Your task to perform on an android device: turn off data saver in the chrome app Image 0: 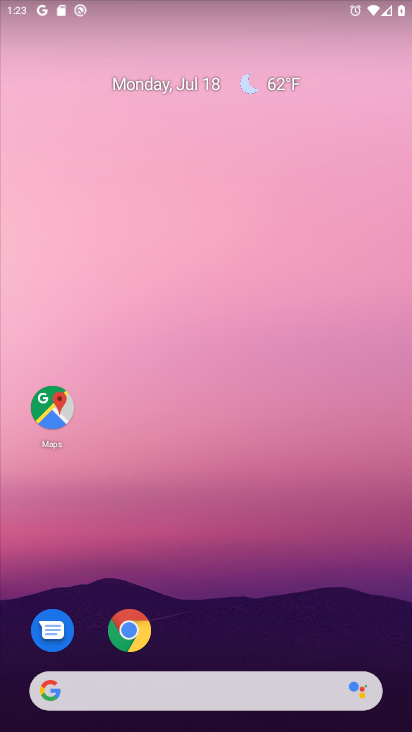
Step 0: click (133, 637)
Your task to perform on an android device: turn off data saver in the chrome app Image 1: 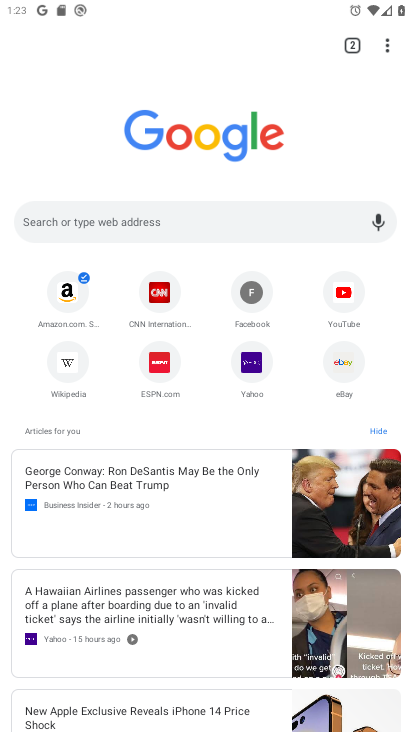
Step 1: click (377, 43)
Your task to perform on an android device: turn off data saver in the chrome app Image 2: 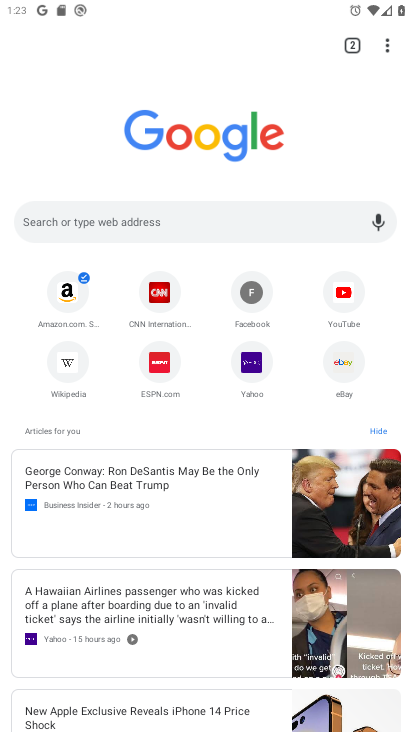
Step 2: click (390, 41)
Your task to perform on an android device: turn off data saver in the chrome app Image 3: 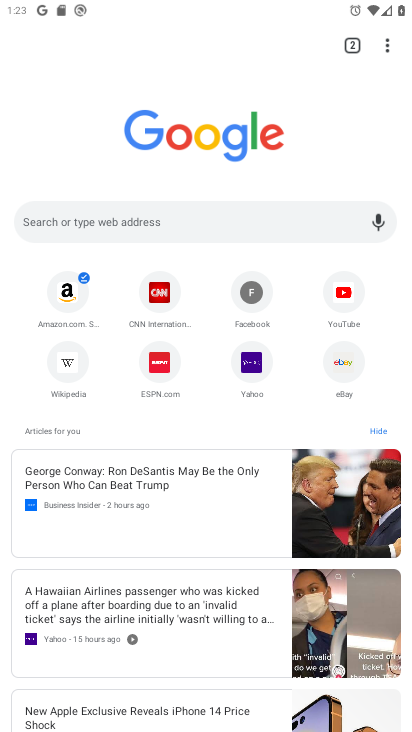
Step 3: click (389, 53)
Your task to perform on an android device: turn off data saver in the chrome app Image 4: 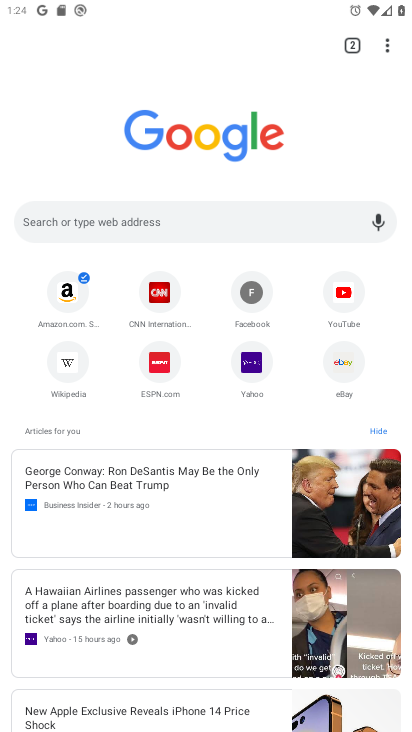
Step 4: click (385, 50)
Your task to perform on an android device: turn off data saver in the chrome app Image 5: 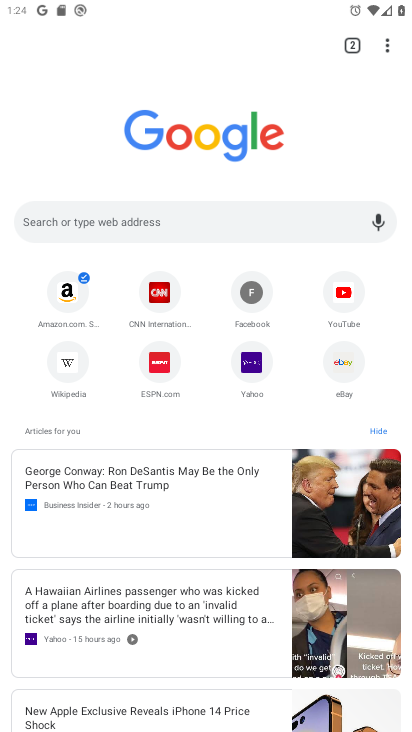
Step 5: click (382, 45)
Your task to perform on an android device: turn off data saver in the chrome app Image 6: 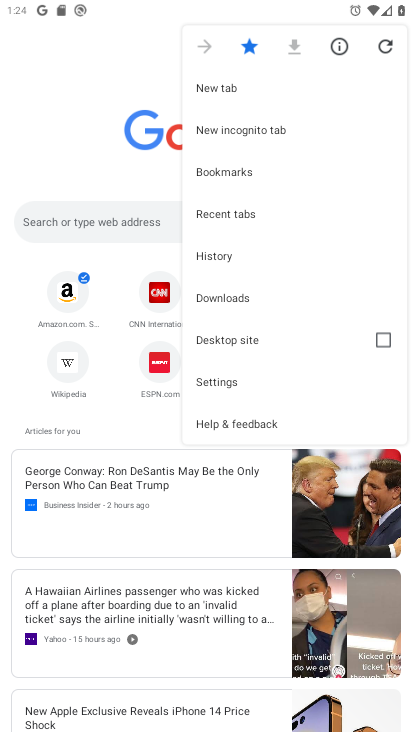
Step 6: click (211, 372)
Your task to perform on an android device: turn off data saver in the chrome app Image 7: 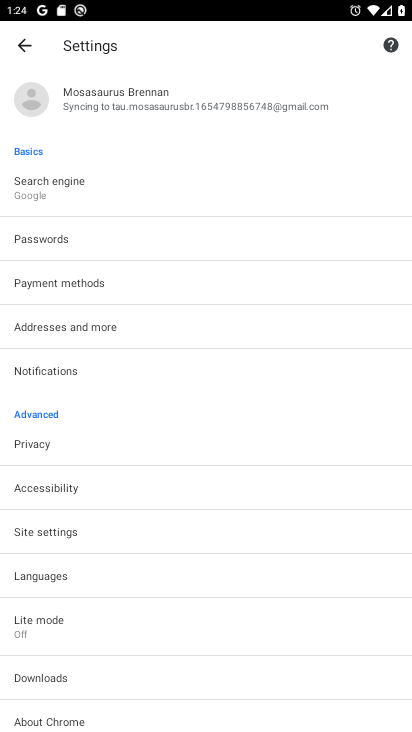
Step 7: click (49, 624)
Your task to perform on an android device: turn off data saver in the chrome app Image 8: 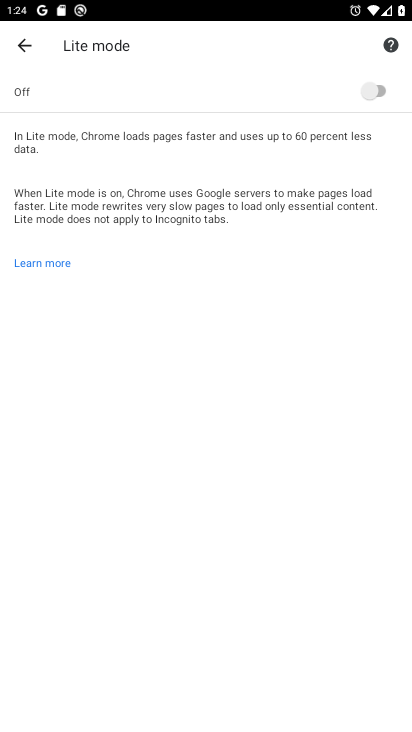
Step 8: task complete